Your task to perform on an android device: see sites visited before in the chrome app Image 0: 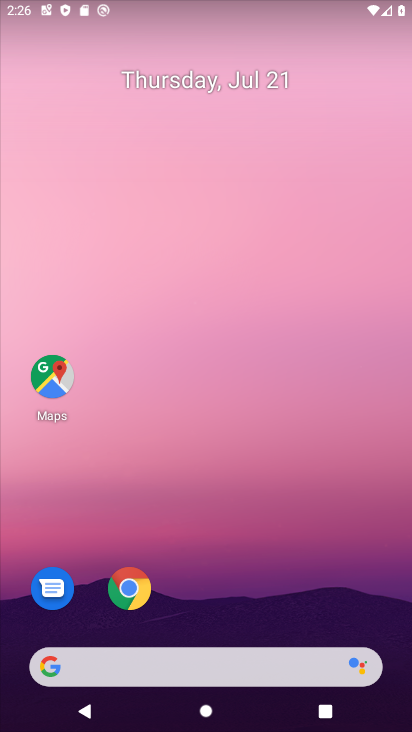
Step 0: drag from (200, 583) to (243, 91)
Your task to perform on an android device: see sites visited before in the chrome app Image 1: 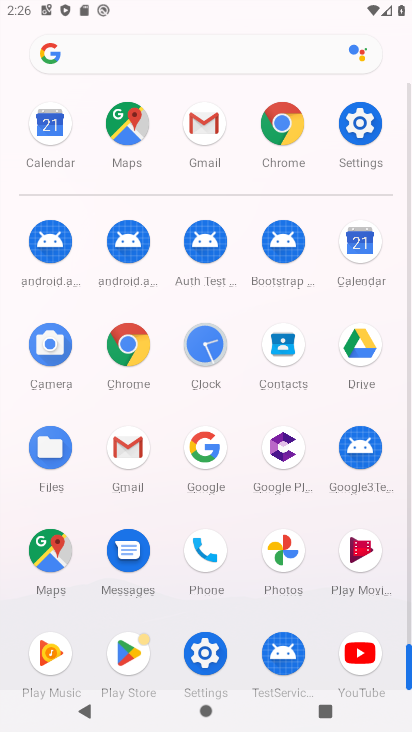
Step 1: click (127, 347)
Your task to perform on an android device: see sites visited before in the chrome app Image 2: 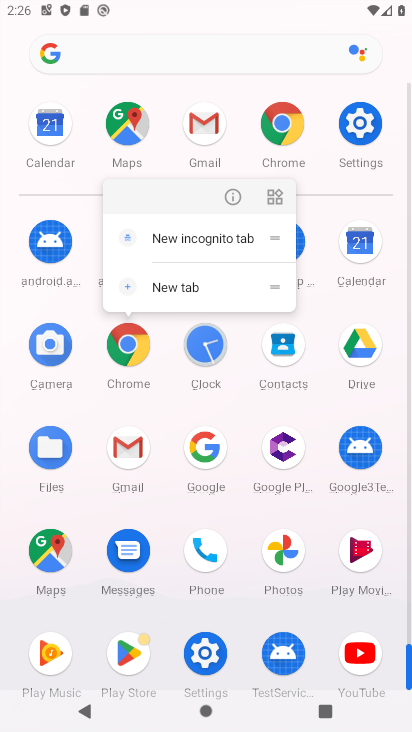
Step 2: click (213, 189)
Your task to perform on an android device: see sites visited before in the chrome app Image 3: 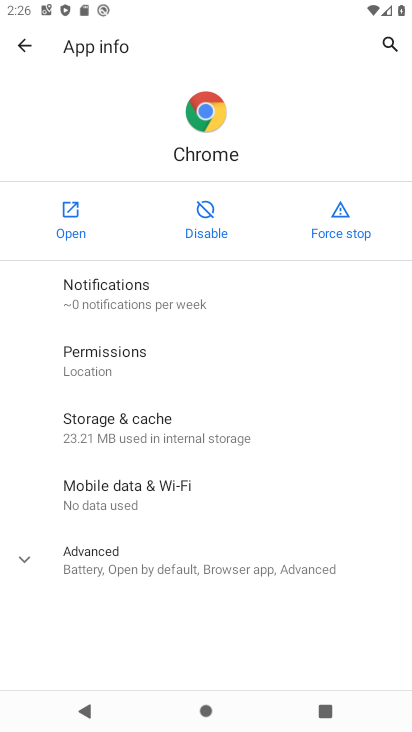
Step 3: click (63, 222)
Your task to perform on an android device: see sites visited before in the chrome app Image 4: 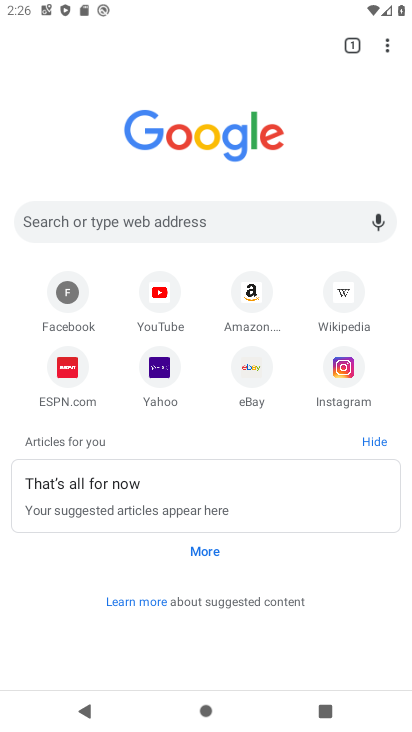
Step 4: task complete